Your task to perform on an android device: toggle javascript in the chrome app Image 0: 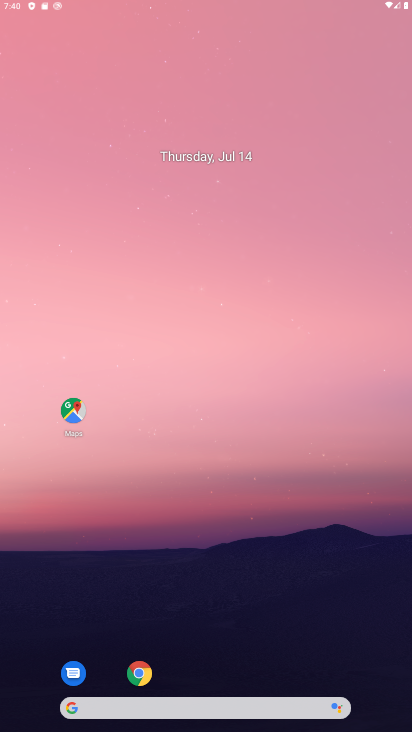
Step 0: drag from (214, 679) to (241, 211)
Your task to perform on an android device: toggle javascript in the chrome app Image 1: 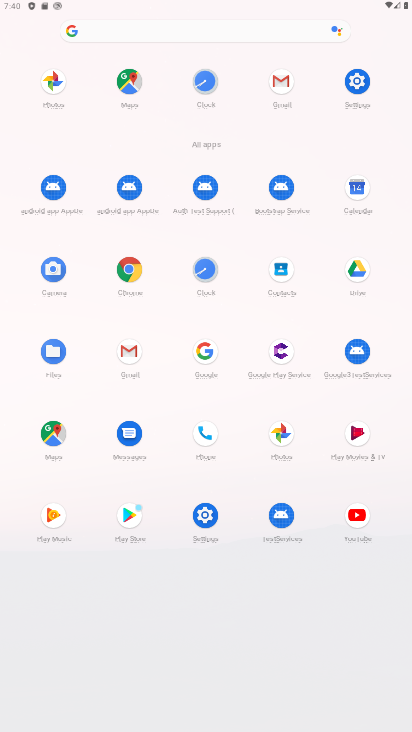
Step 1: press home button
Your task to perform on an android device: toggle javascript in the chrome app Image 2: 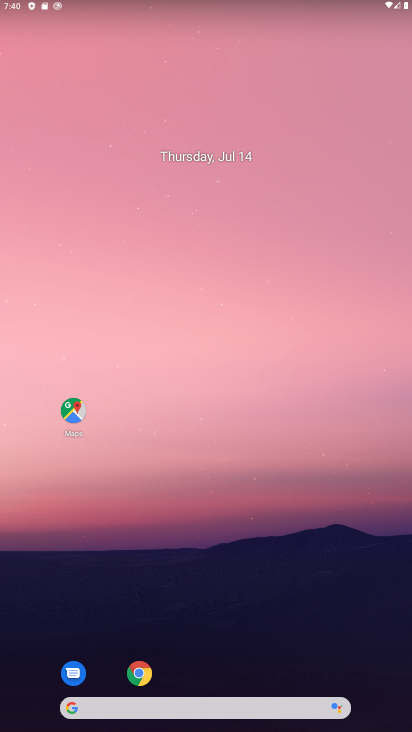
Step 2: drag from (132, 647) to (292, 132)
Your task to perform on an android device: toggle javascript in the chrome app Image 3: 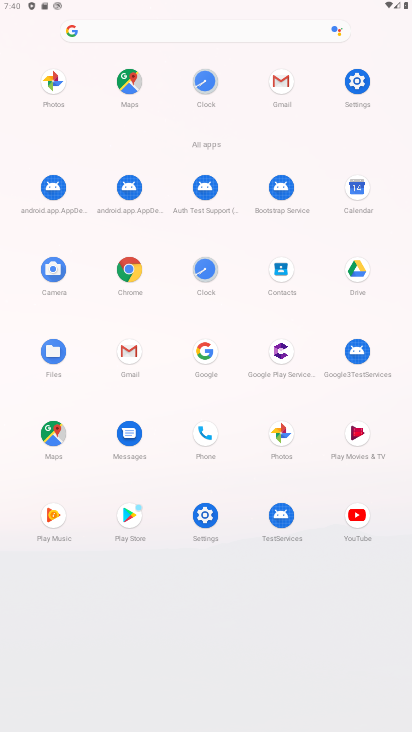
Step 3: drag from (214, 581) to (229, 272)
Your task to perform on an android device: toggle javascript in the chrome app Image 4: 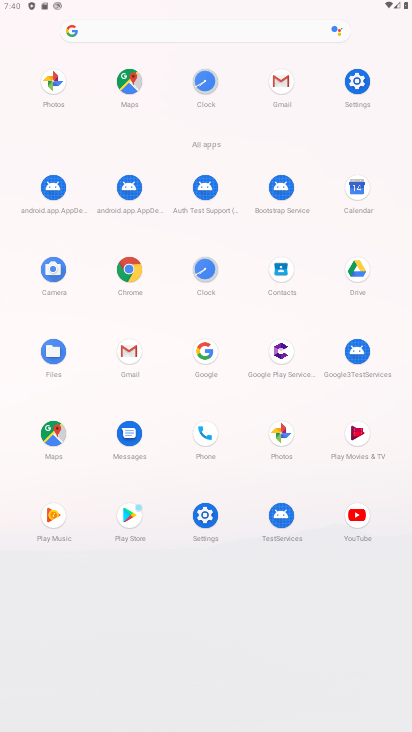
Step 4: click (127, 273)
Your task to perform on an android device: toggle javascript in the chrome app Image 5: 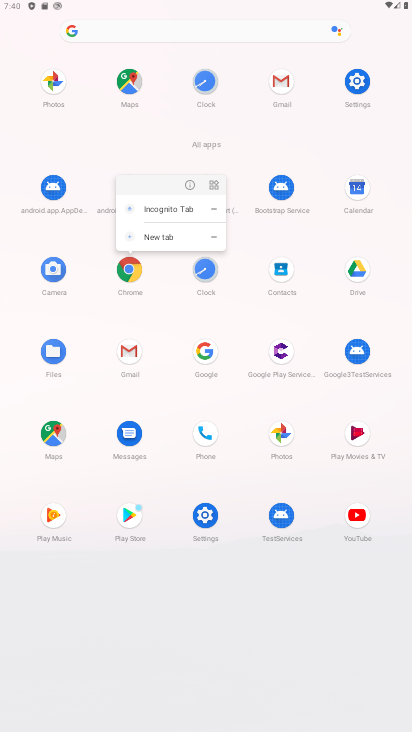
Step 5: click (192, 188)
Your task to perform on an android device: toggle javascript in the chrome app Image 6: 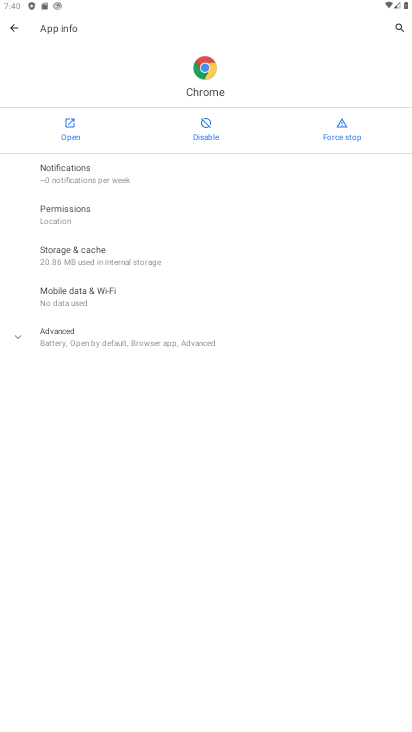
Step 6: click (72, 136)
Your task to perform on an android device: toggle javascript in the chrome app Image 7: 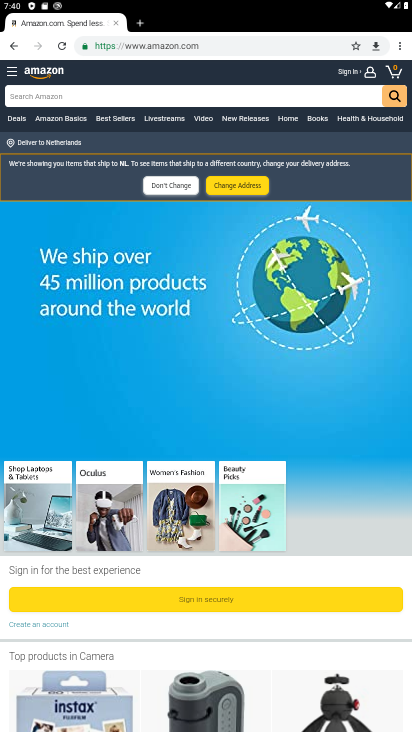
Step 7: click (395, 47)
Your task to perform on an android device: toggle javascript in the chrome app Image 8: 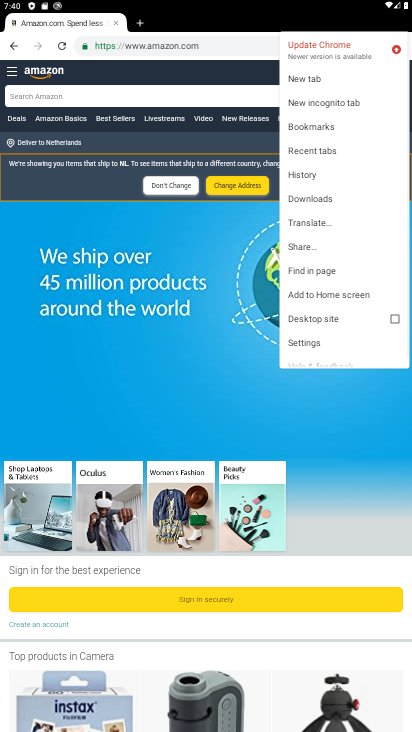
Step 8: drag from (320, 334) to (367, 186)
Your task to perform on an android device: toggle javascript in the chrome app Image 9: 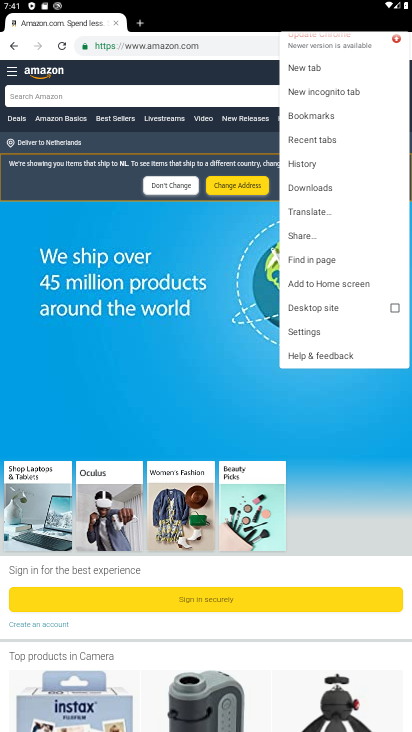
Step 9: click (310, 331)
Your task to perform on an android device: toggle javascript in the chrome app Image 10: 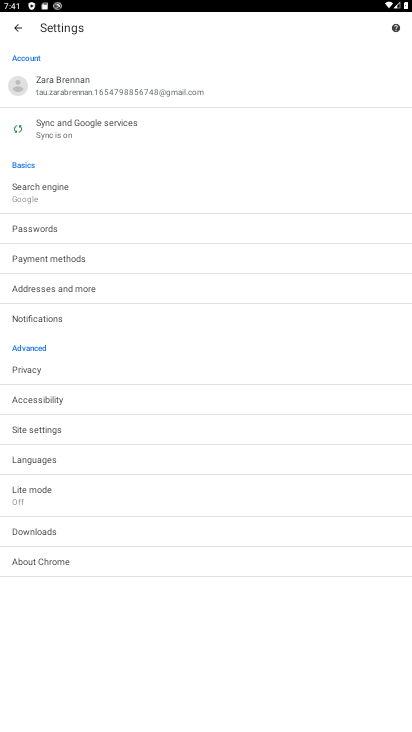
Step 10: click (57, 503)
Your task to perform on an android device: toggle javascript in the chrome app Image 11: 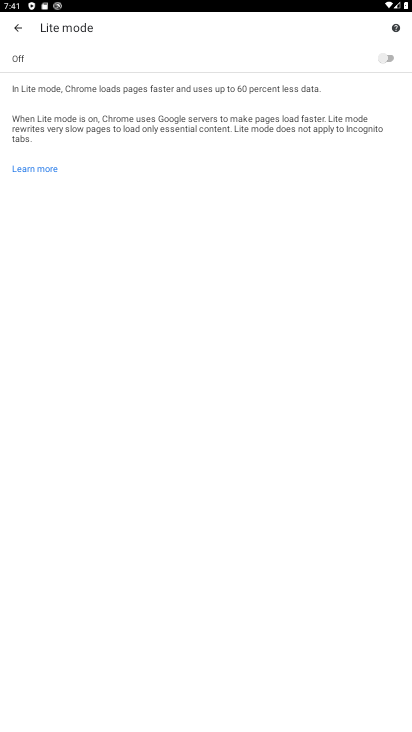
Step 11: click (17, 29)
Your task to perform on an android device: toggle javascript in the chrome app Image 12: 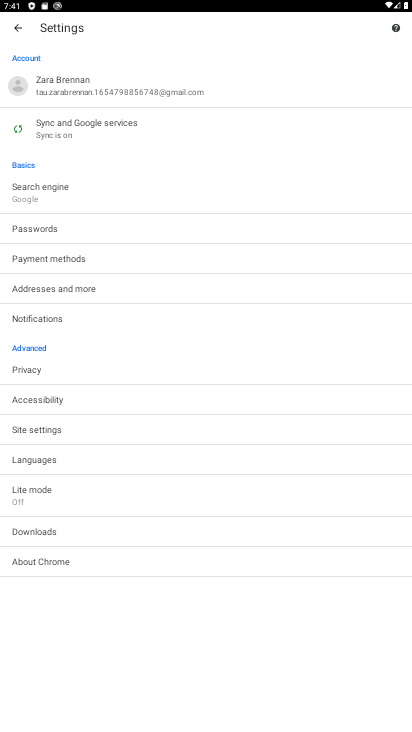
Step 12: click (59, 429)
Your task to perform on an android device: toggle javascript in the chrome app Image 13: 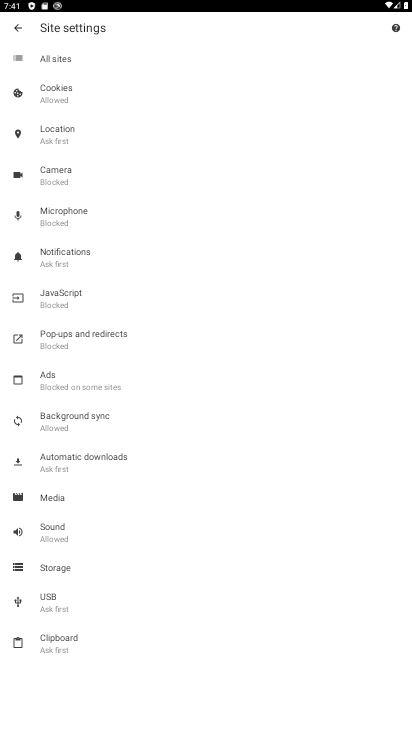
Step 13: click (100, 303)
Your task to perform on an android device: toggle javascript in the chrome app Image 14: 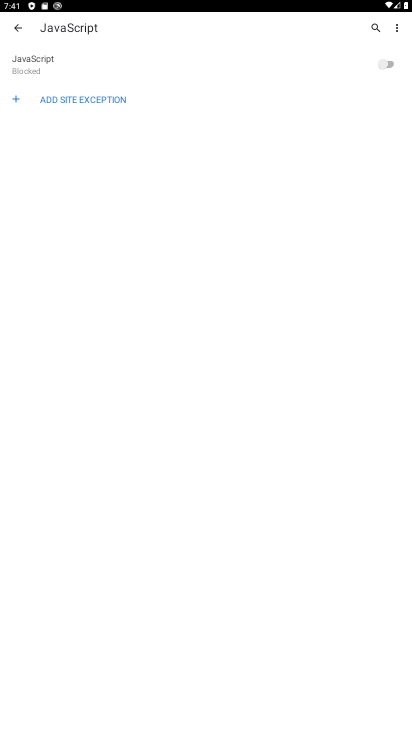
Step 14: click (249, 56)
Your task to perform on an android device: toggle javascript in the chrome app Image 15: 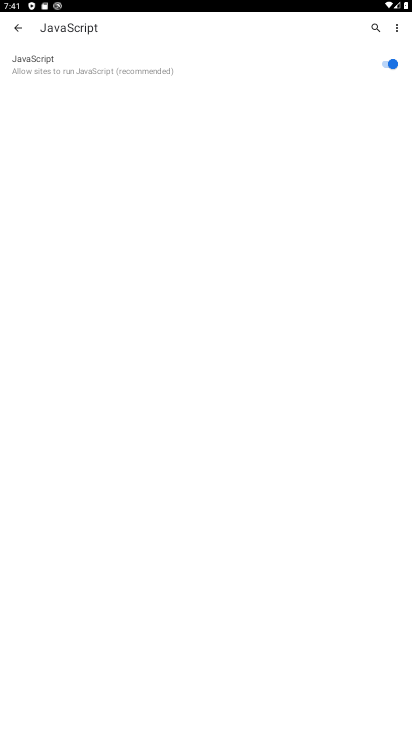
Step 15: task complete